Your task to perform on an android device: Go to eBay Image 0: 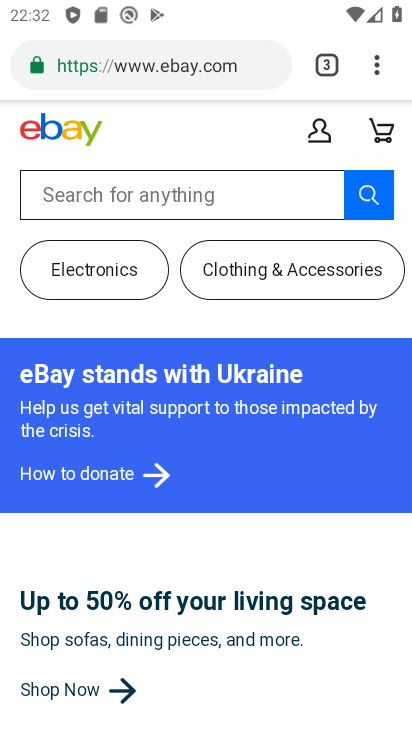
Step 0: task complete